Your task to perform on an android device: empty trash in google photos Image 0: 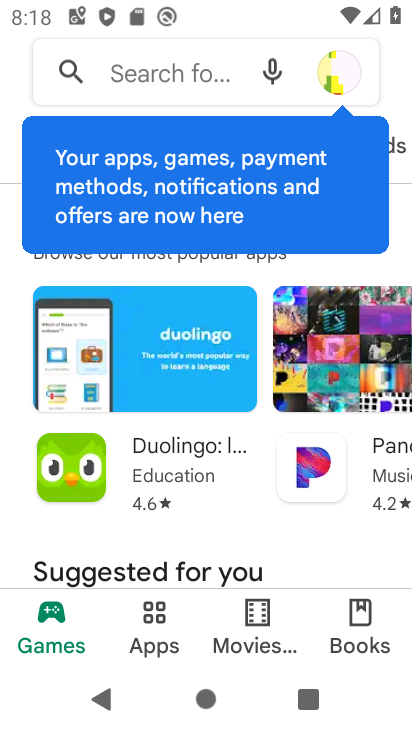
Step 0: press home button
Your task to perform on an android device: empty trash in google photos Image 1: 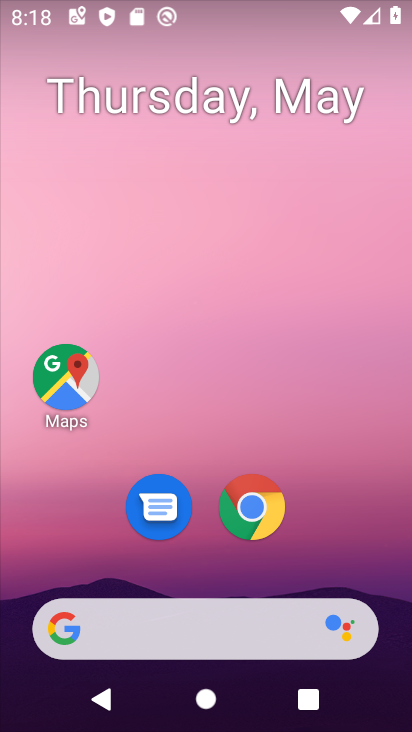
Step 1: drag from (343, 561) to (411, 113)
Your task to perform on an android device: empty trash in google photos Image 2: 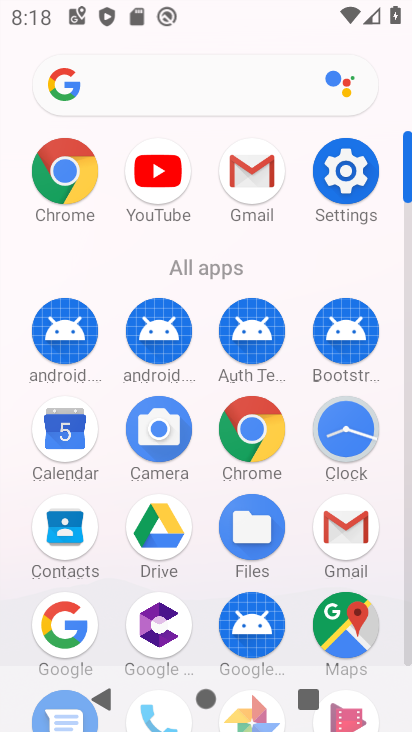
Step 2: drag from (299, 568) to (295, 248)
Your task to perform on an android device: empty trash in google photos Image 3: 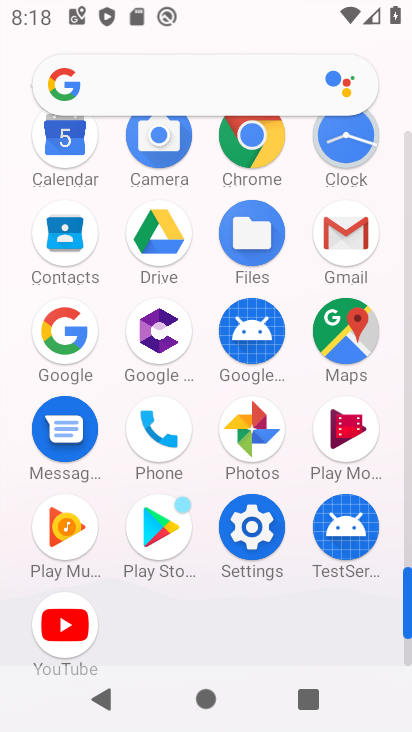
Step 3: click (272, 430)
Your task to perform on an android device: empty trash in google photos Image 4: 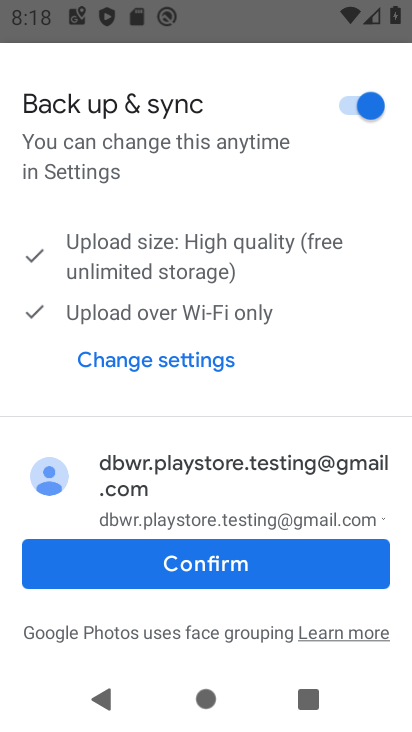
Step 4: click (226, 557)
Your task to perform on an android device: empty trash in google photos Image 5: 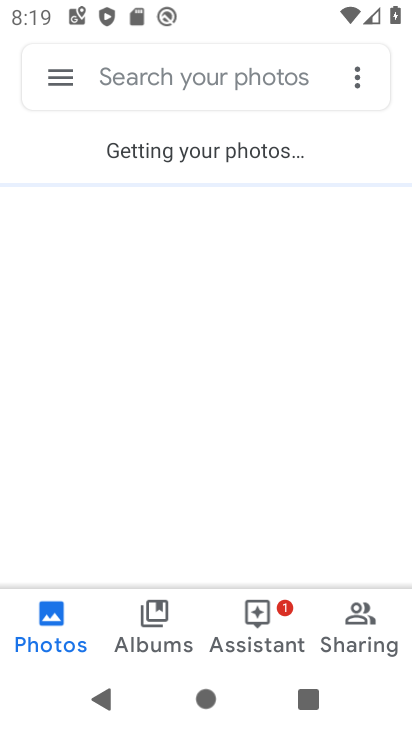
Step 5: click (50, 83)
Your task to perform on an android device: empty trash in google photos Image 6: 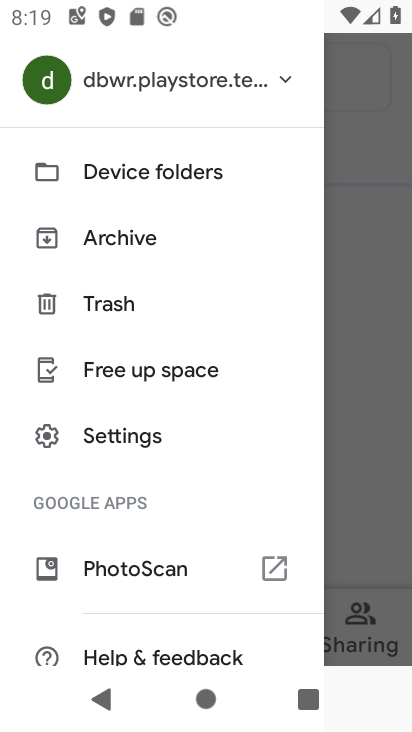
Step 6: click (99, 309)
Your task to perform on an android device: empty trash in google photos Image 7: 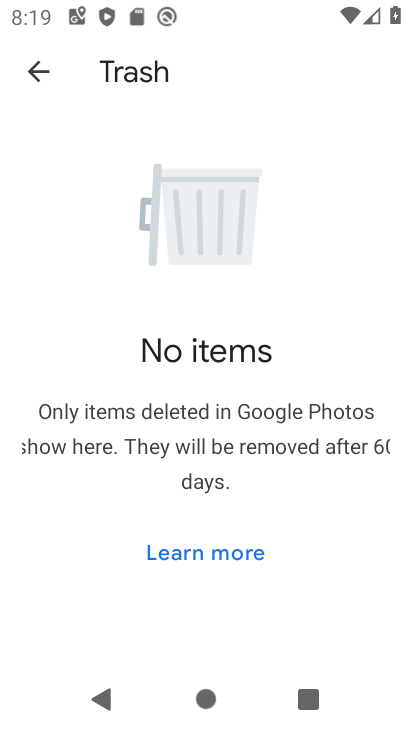
Step 7: task complete